Your task to perform on an android device: check android version Image 0: 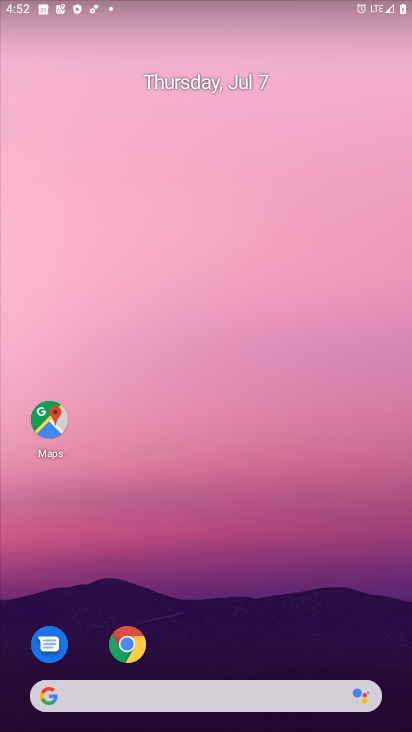
Step 0: drag from (250, 642) to (190, 140)
Your task to perform on an android device: check android version Image 1: 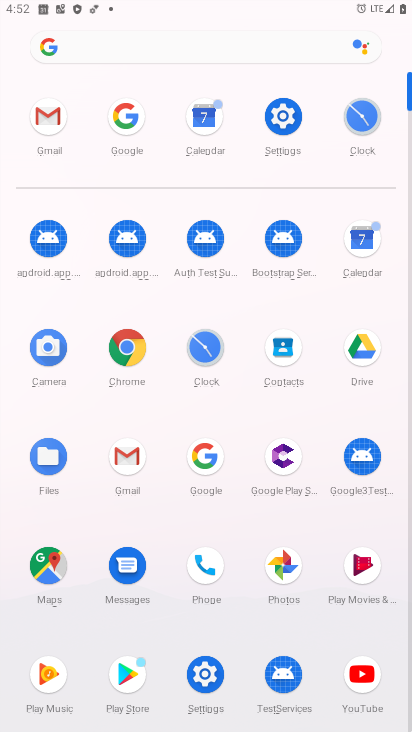
Step 1: click (208, 674)
Your task to perform on an android device: check android version Image 2: 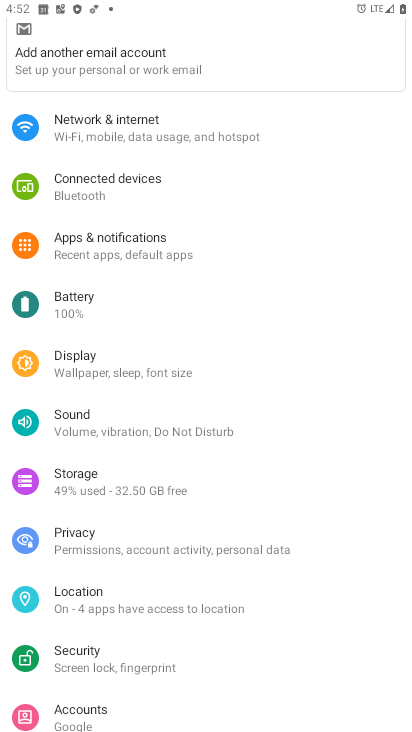
Step 2: drag from (115, 529) to (150, 420)
Your task to perform on an android device: check android version Image 3: 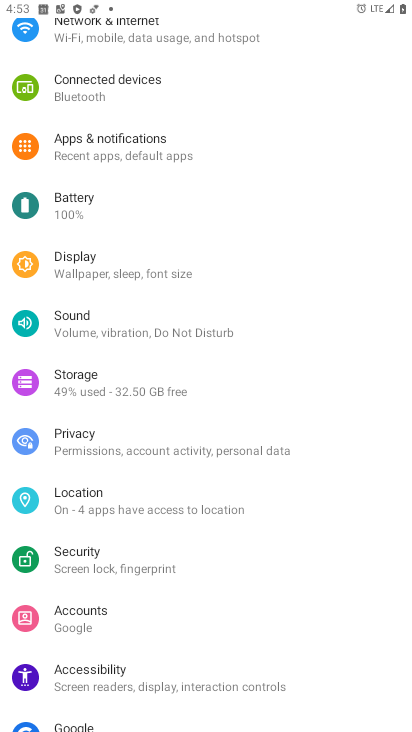
Step 3: drag from (97, 580) to (183, 469)
Your task to perform on an android device: check android version Image 4: 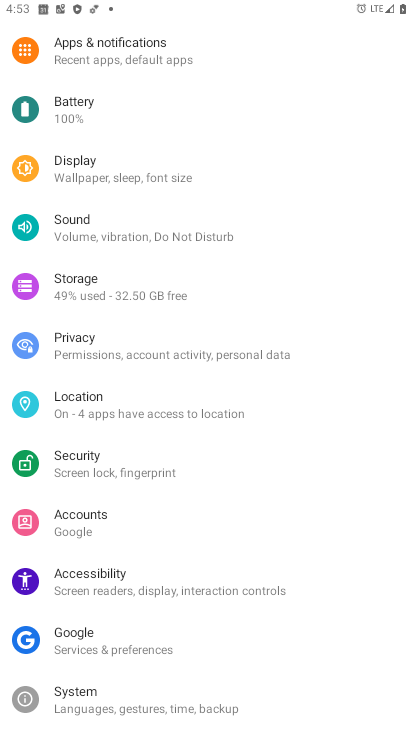
Step 4: drag from (90, 676) to (236, 505)
Your task to perform on an android device: check android version Image 5: 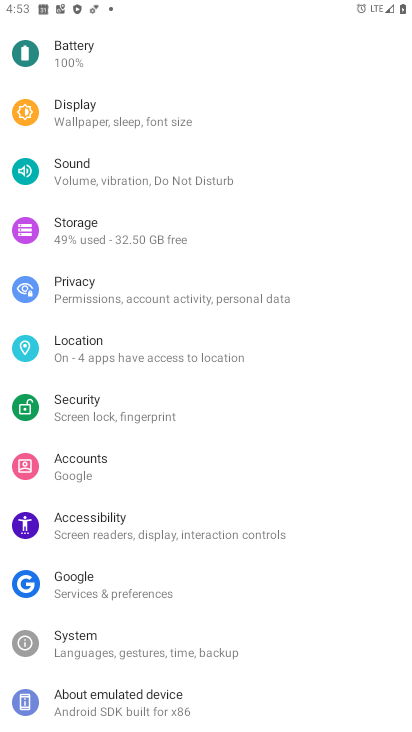
Step 5: click (94, 692)
Your task to perform on an android device: check android version Image 6: 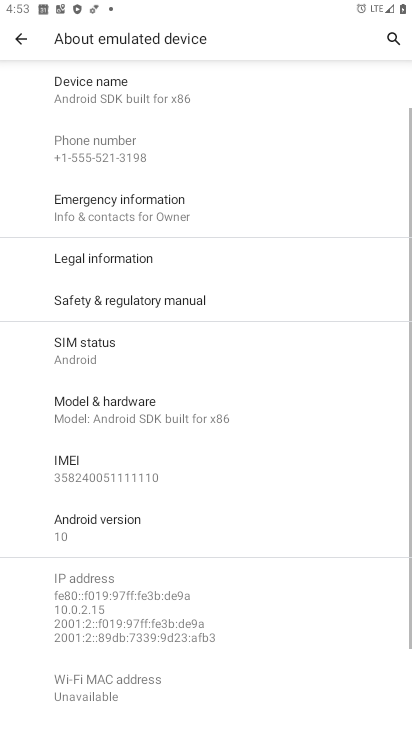
Step 6: click (72, 517)
Your task to perform on an android device: check android version Image 7: 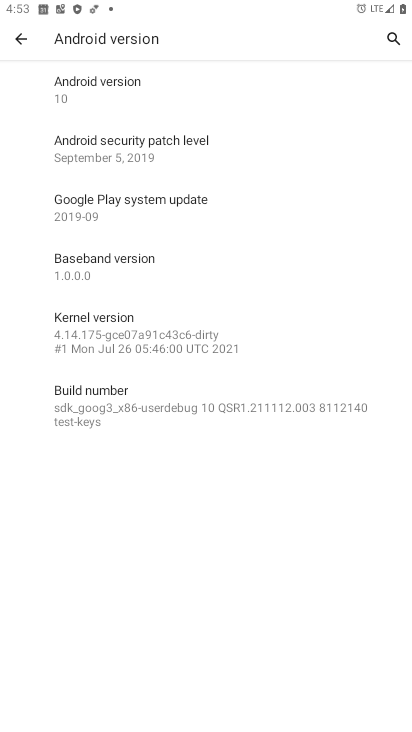
Step 7: task complete